Your task to perform on an android device: turn on javascript in the chrome app Image 0: 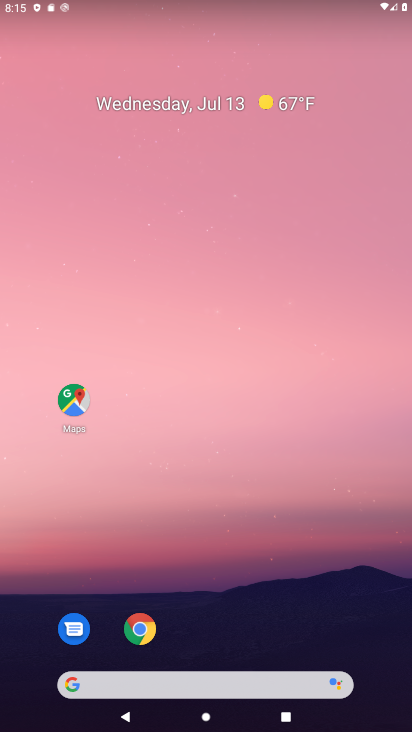
Step 0: drag from (227, 552) to (257, 63)
Your task to perform on an android device: turn on javascript in the chrome app Image 1: 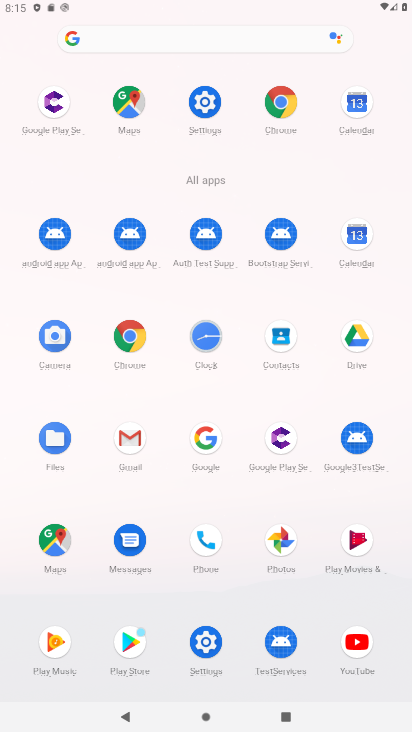
Step 1: click (131, 338)
Your task to perform on an android device: turn on javascript in the chrome app Image 2: 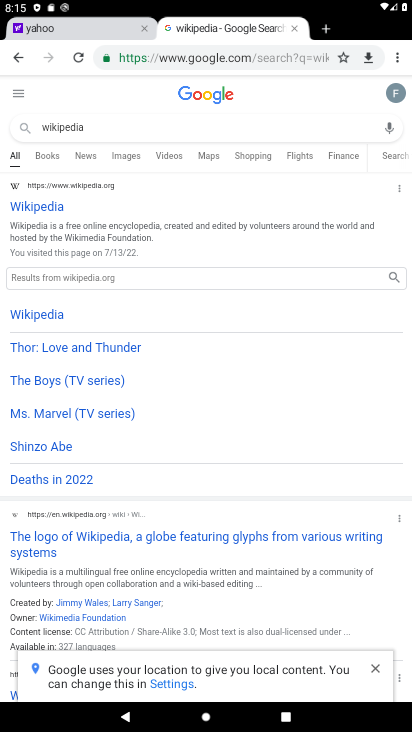
Step 2: click (396, 52)
Your task to perform on an android device: turn on javascript in the chrome app Image 3: 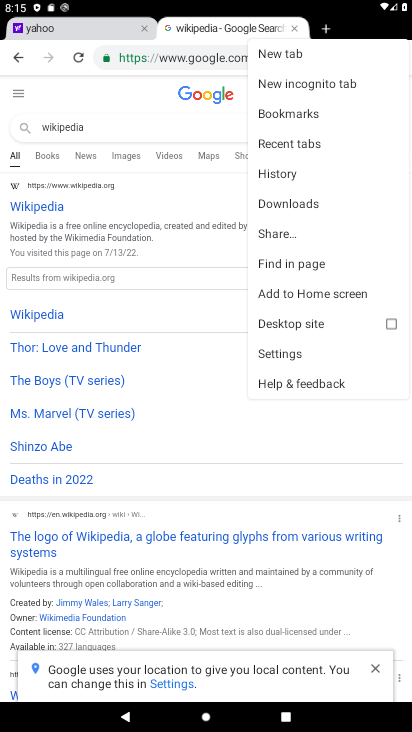
Step 3: click (288, 357)
Your task to perform on an android device: turn on javascript in the chrome app Image 4: 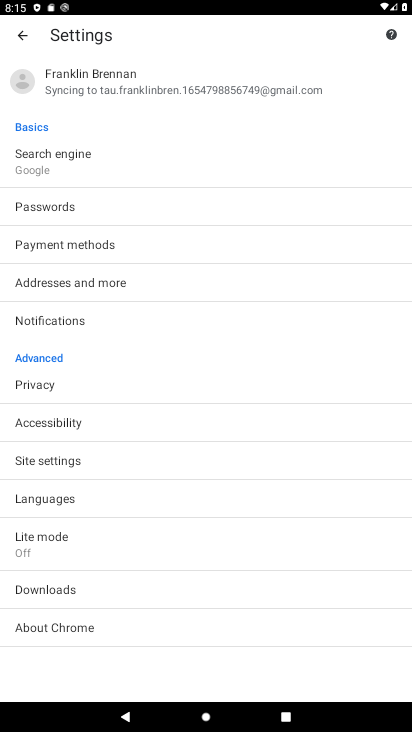
Step 4: click (62, 458)
Your task to perform on an android device: turn on javascript in the chrome app Image 5: 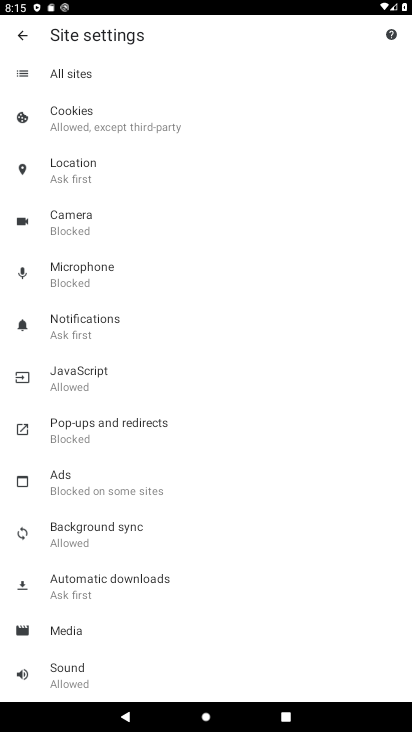
Step 5: click (85, 380)
Your task to perform on an android device: turn on javascript in the chrome app Image 6: 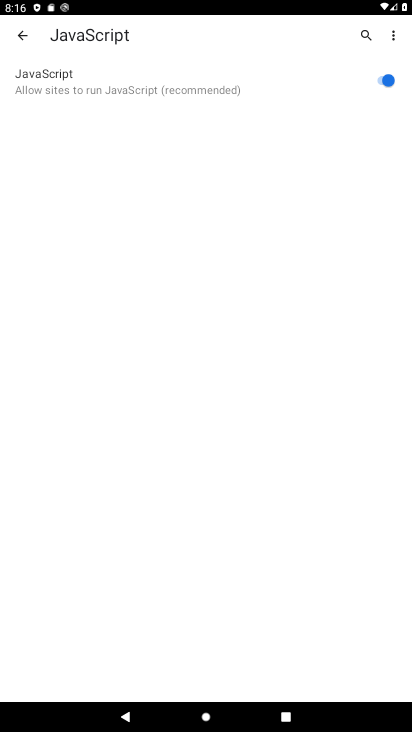
Step 6: task complete